Your task to perform on an android device: turn off location history Image 0: 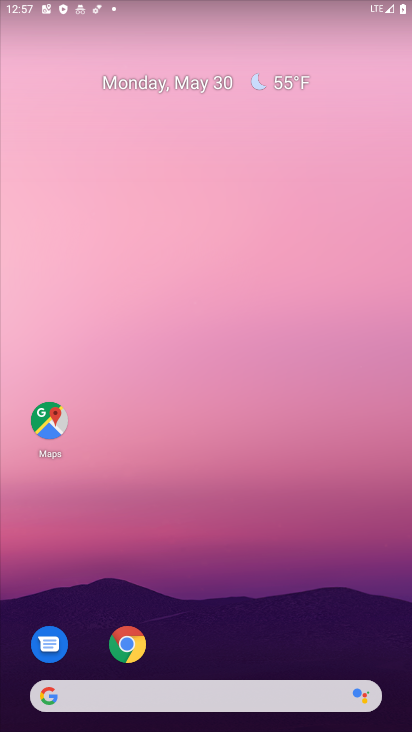
Step 0: drag from (245, 654) to (247, 191)
Your task to perform on an android device: turn off location history Image 1: 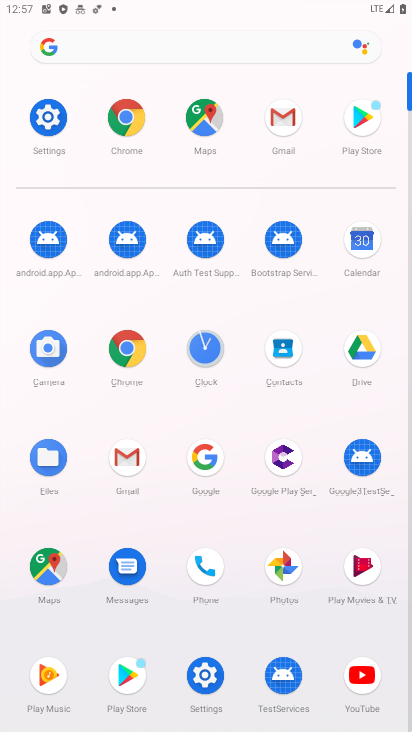
Step 1: click (67, 158)
Your task to perform on an android device: turn off location history Image 2: 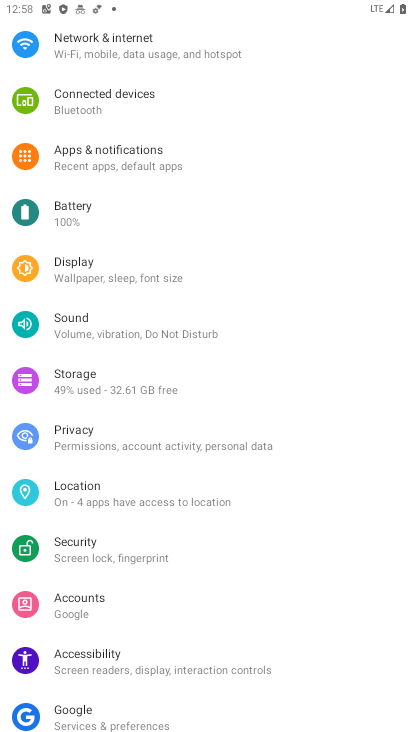
Step 2: click (136, 496)
Your task to perform on an android device: turn off location history Image 3: 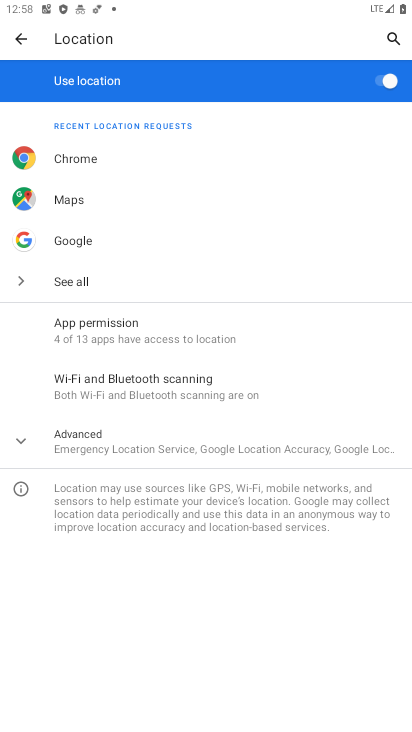
Step 3: task complete